Your task to perform on an android device: Turn on the flashlight Image 0: 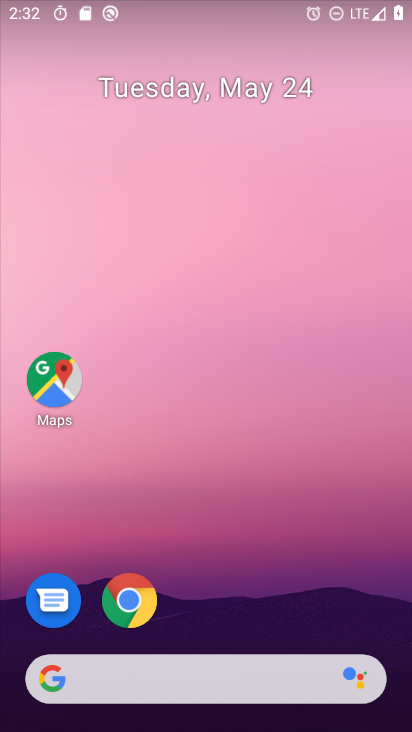
Step 0: drag from (256, 535) to (258, 135)
Your task to perform on an android device: Turn on the flashlight Image 1: 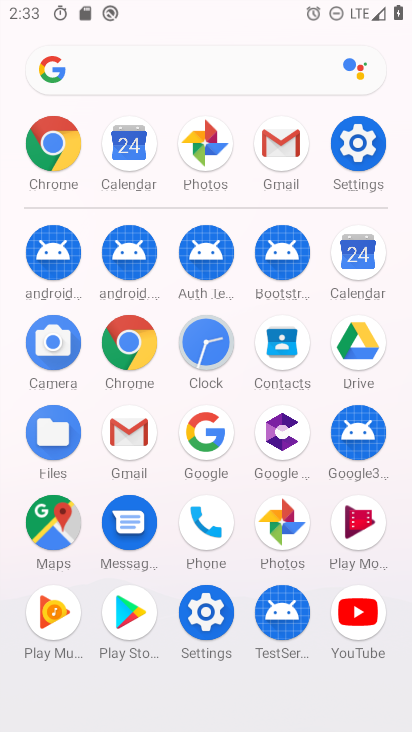
Step 1: click (358, 159)
Your task to perform on an android device: Turn on the flashlight Image 2: 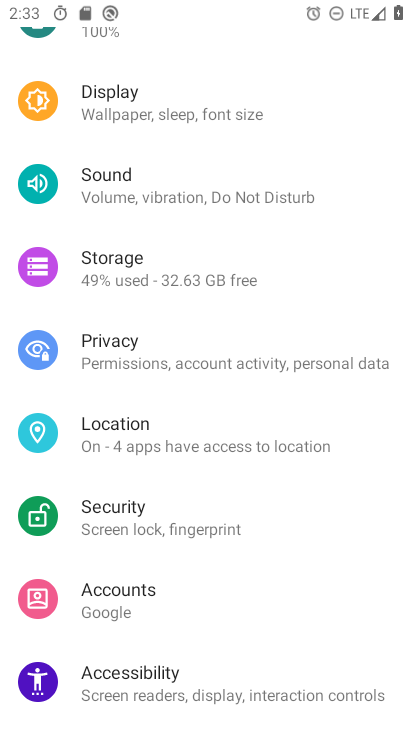
Step 2: drag from (219, 196) to (337, 171)
Your task to perform on an android device: Turn on the flashlight Image 3: 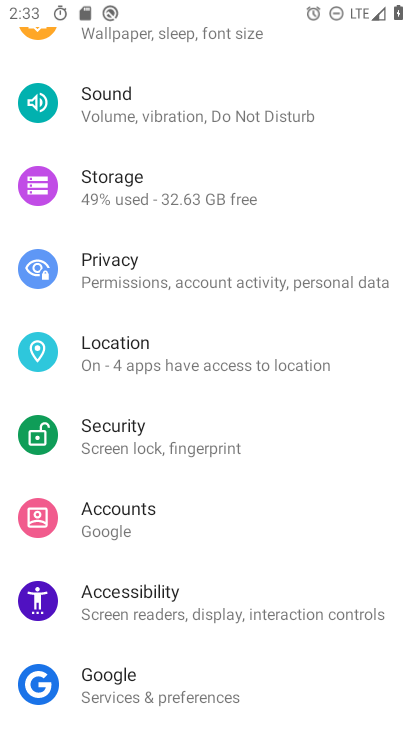
Step 3: drag from (204, 561) to (318, 209)
Your task to perform on an android device: Turn on the flashlight Image 4: 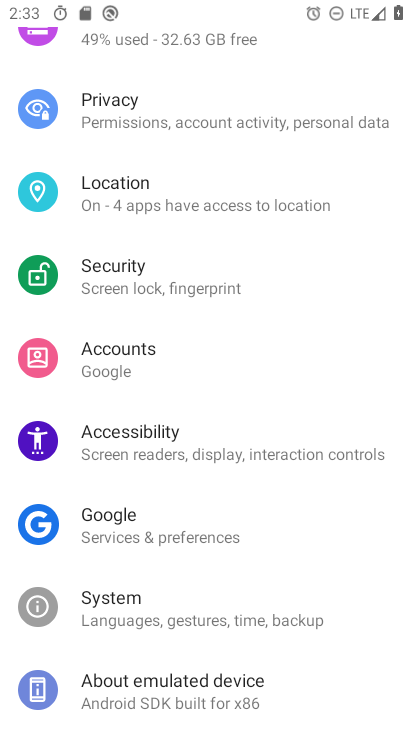
Step 4: drag from (228, 188) to (214, 728)
Your task to perform on an android device: Turn on the flashlight Image 5: 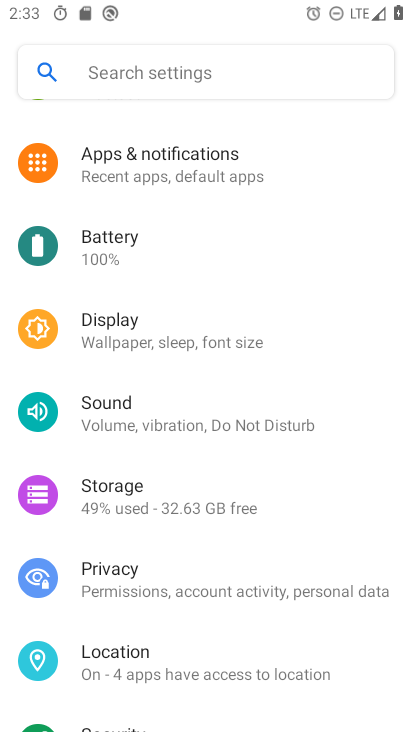
Step 5: drag from (245, 311) to (230, 677)
Your task to perform on an android device: Turn on the flashlight Image 6: 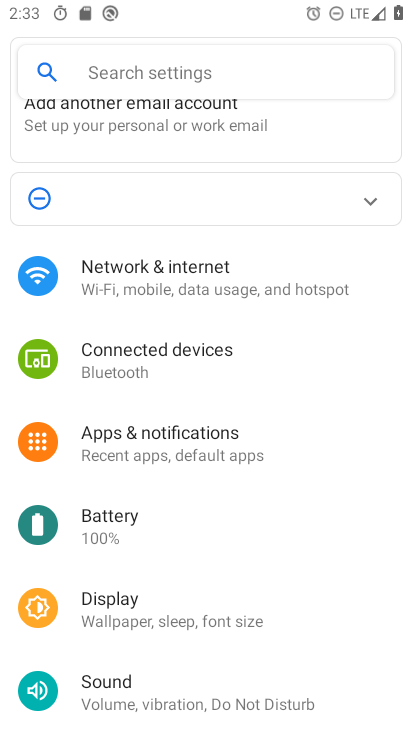
Step 6: click (139, 609)
Your task to perform on an android device: Turn on the flashlight Image 7: 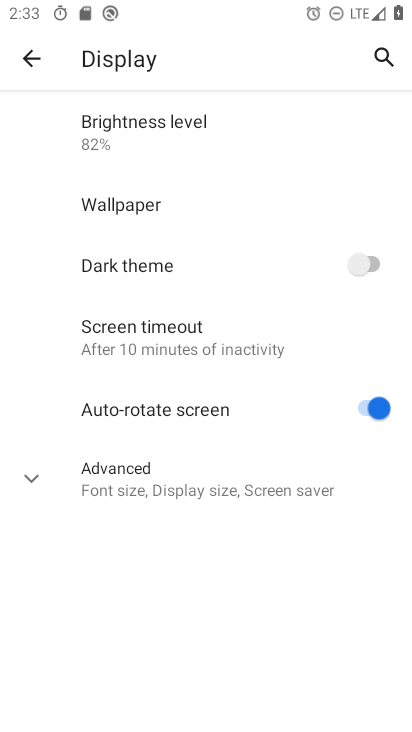
Step 7: task complete